Your task to perform on an android device: open a bookmark in the chrome app Image 0: 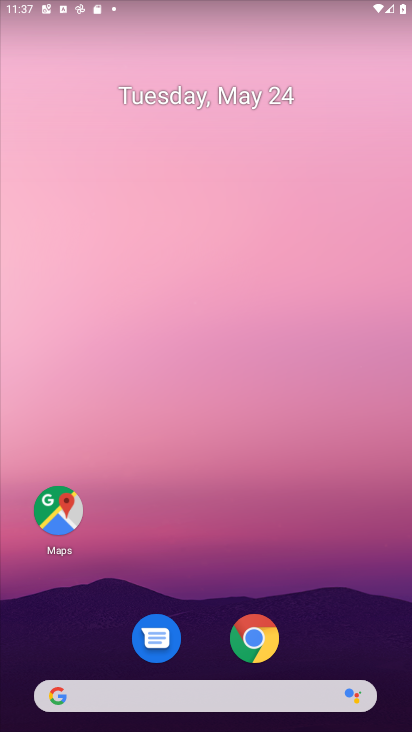
Step 0: click (258, 646)
Your task to perform on an android device: open a bookmark in the chrome app Image 1: 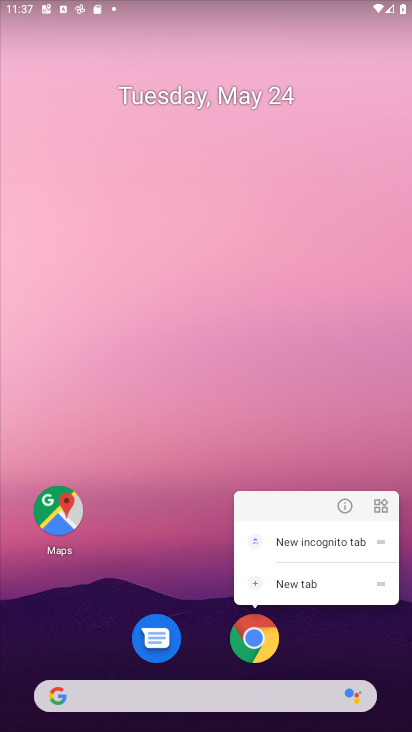
Step 1: click (258, 646)
Your task to perform on an android device: open a bookmark in the chrome app Image 2: 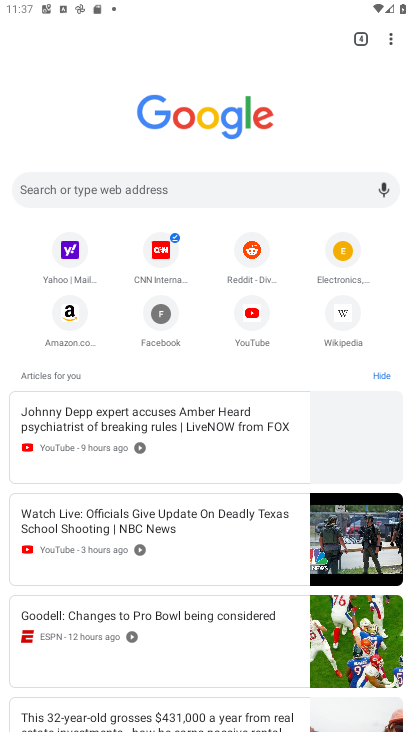
Step 2: click (387, 30)
Your task to perform on an android device: open a bookmark in the chrome app Image 3: 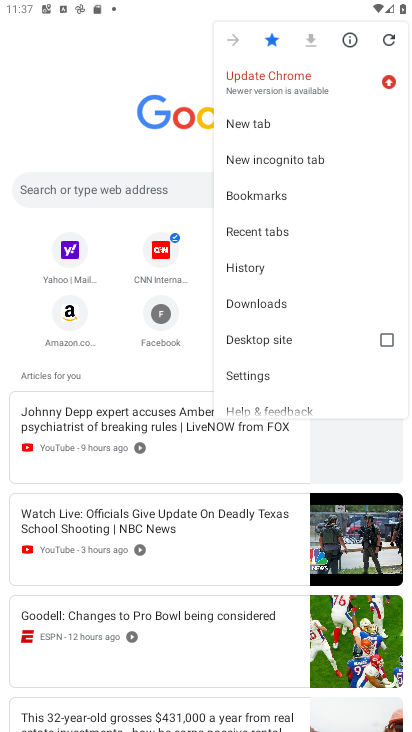
Step 3: click (300, 201)
Your task to perform on an android device: open a bookmark in the chrome app Image 4: 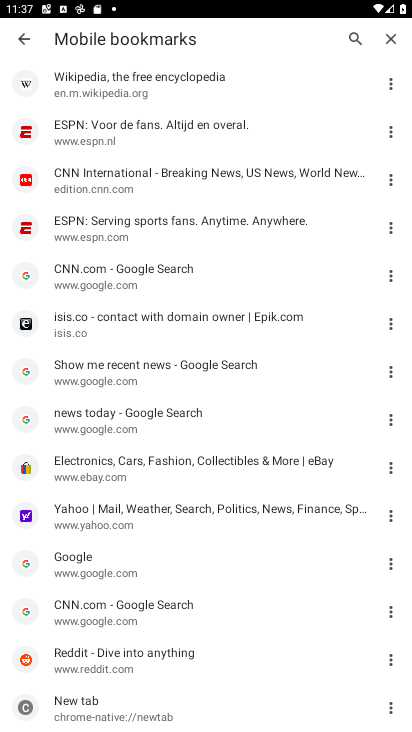
Step 4: click (222, 512)
Your task to perform on an android device: open a bookmark in the chrome app Image 5: 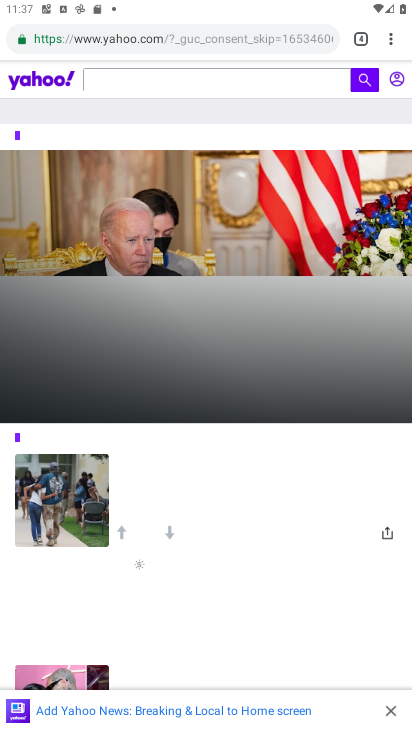
Step 5: task complete